Your task to perform on an android device: Show me recent news Image 0: 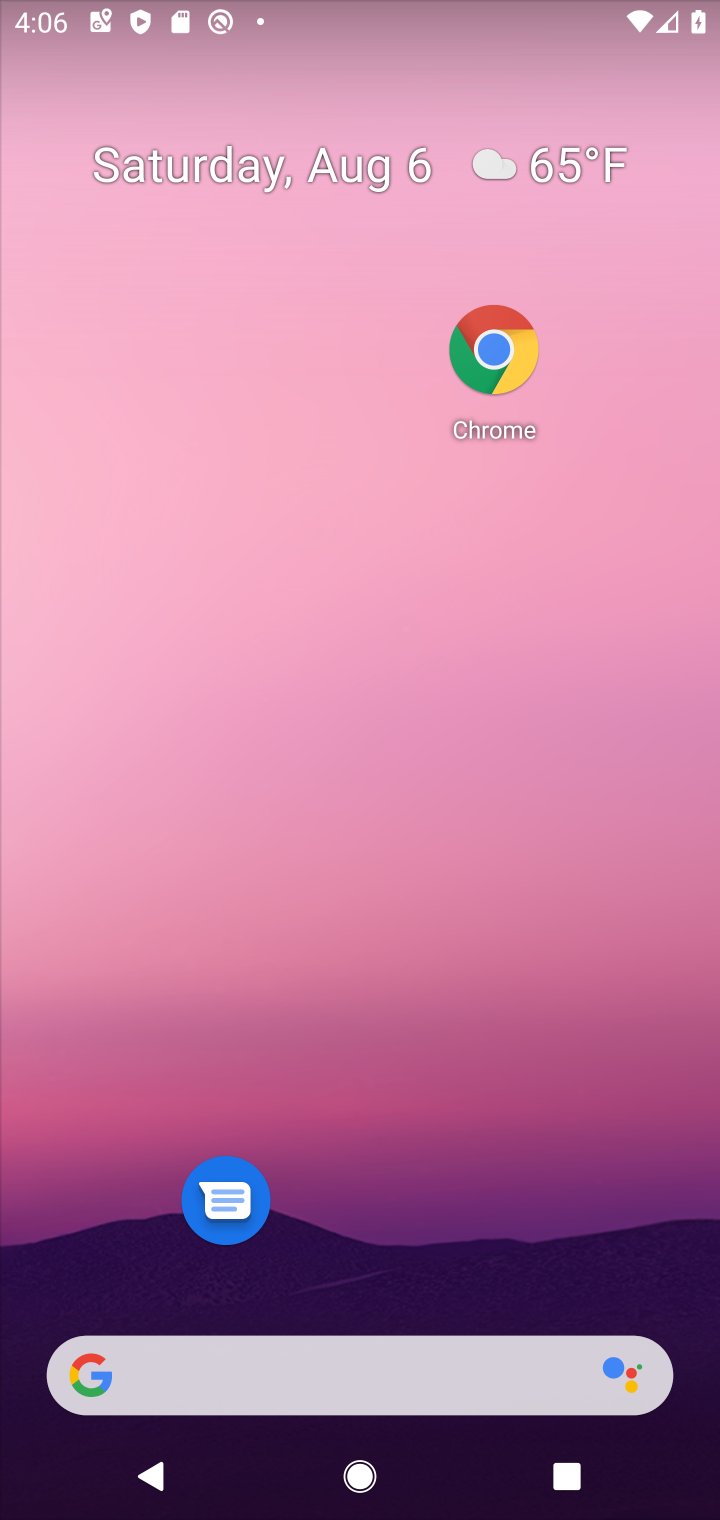
Step 0: press home button
Your task to perform on an android device: Show me recent news Image 1: 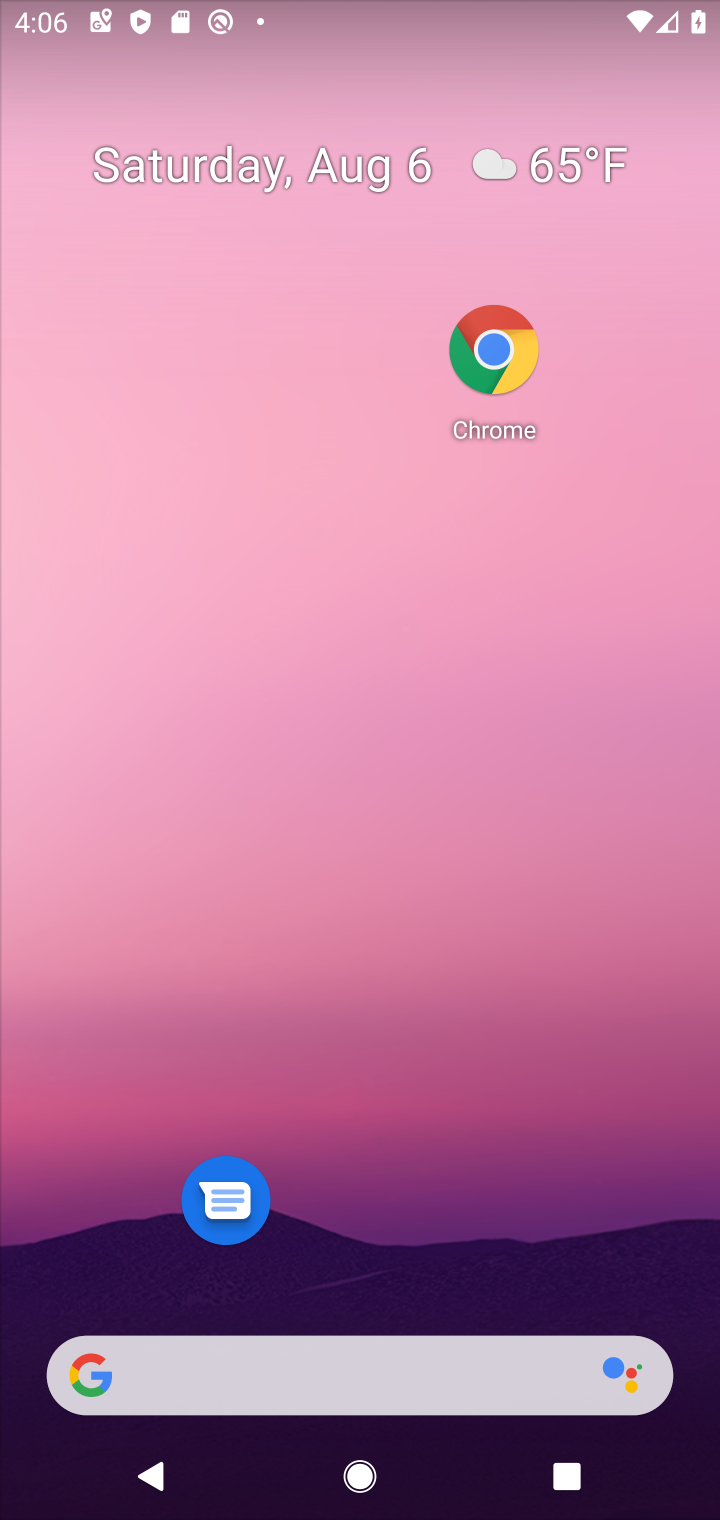
Step 1: drag from (344, 1340) to (257, 458)
Your task to perform on an android device: Show me recent news Image 2: 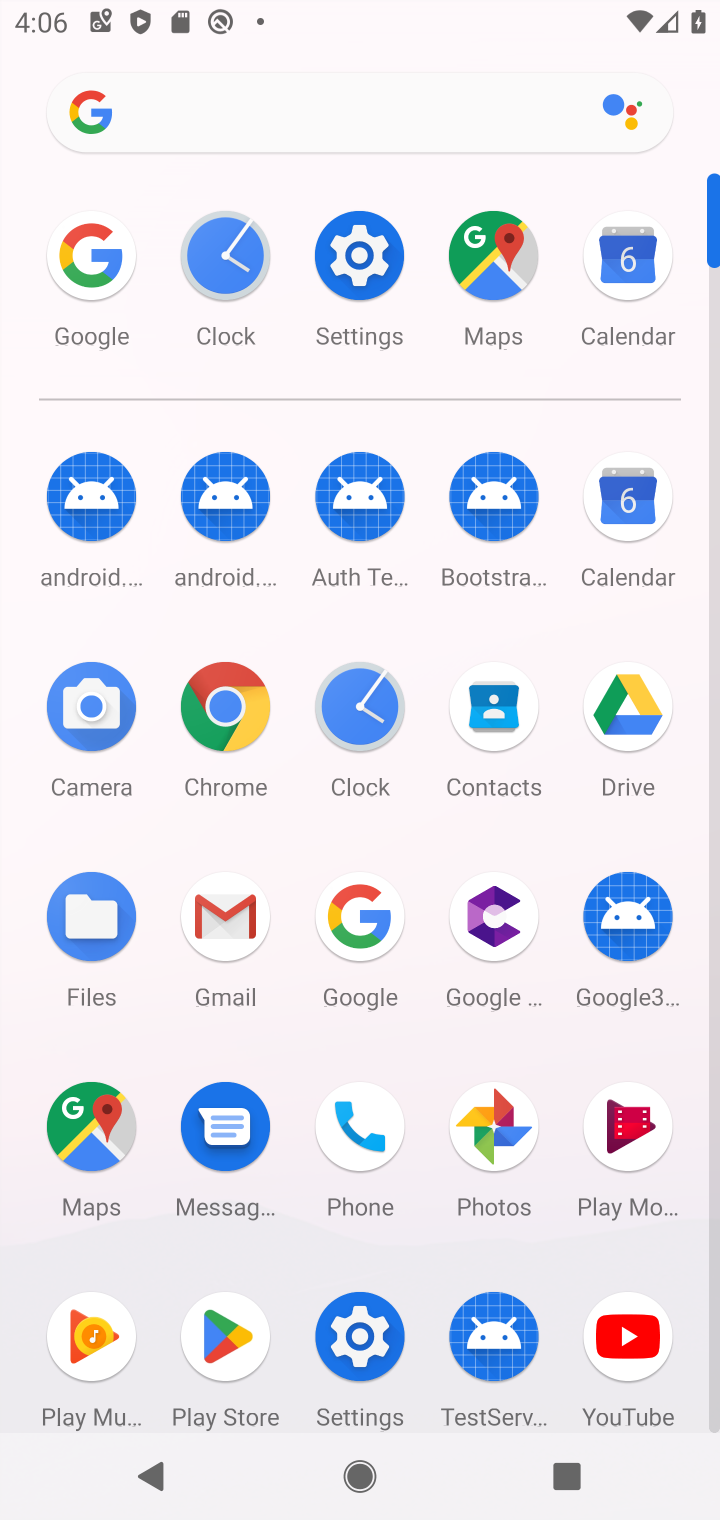
Step 2: click (364, 908)
Your task to perform on an android device: Show me recent news Image 3: 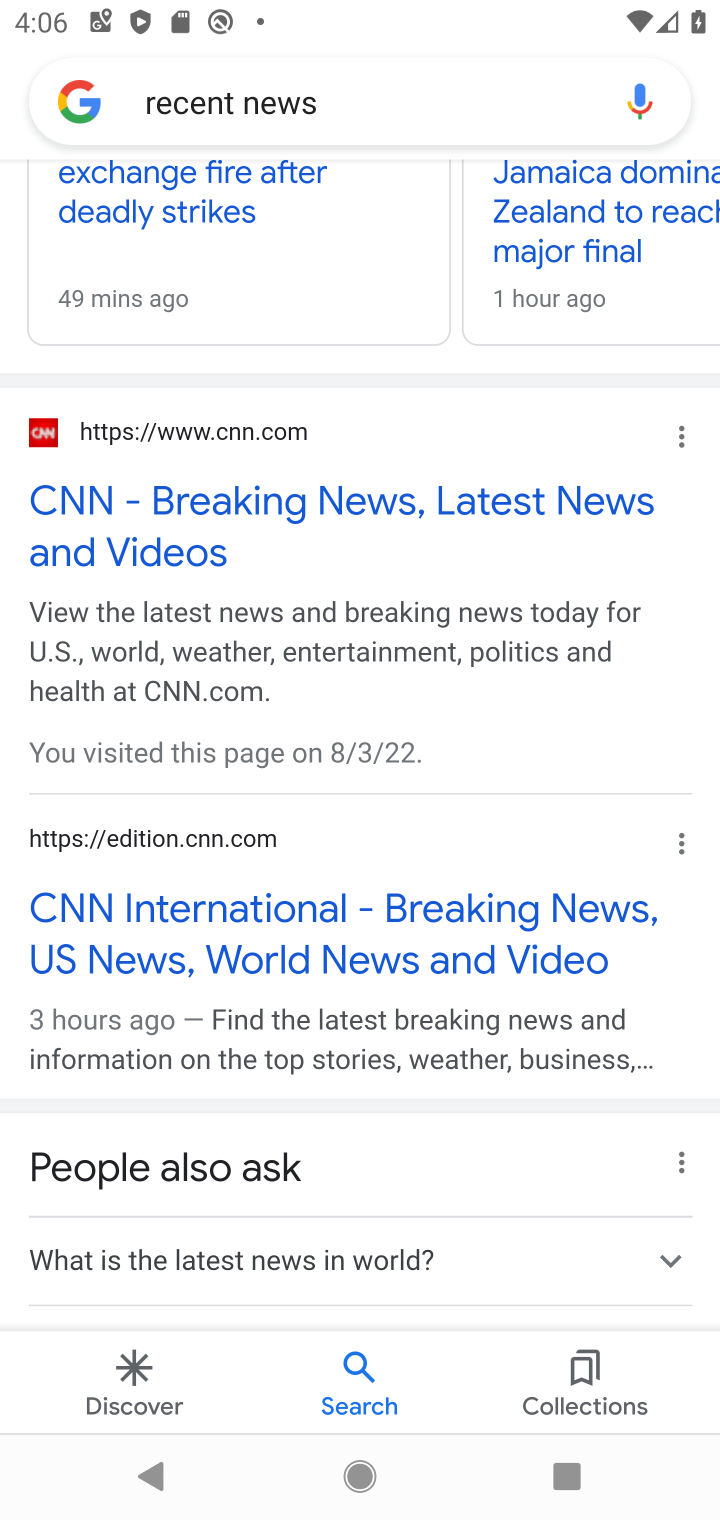
Step 3: task complete